Your task to perform on an android device: Open the calendar and show me this week's events? Image 0: 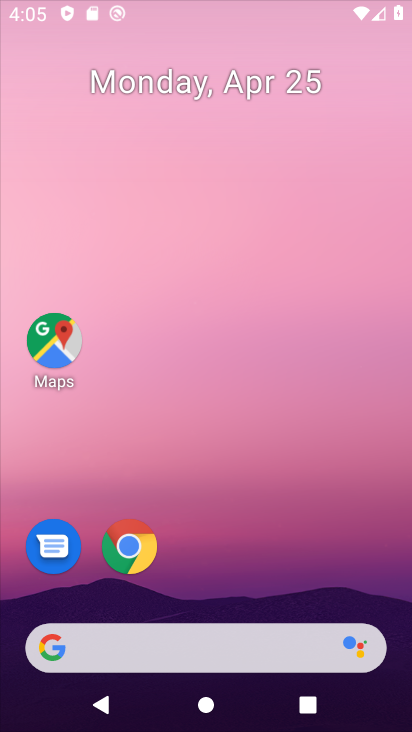
Step 0: drag from (213, 599) to (160, 20)
Your task to perform on an android device: Open the calendar and show me this week's events? Image 1: 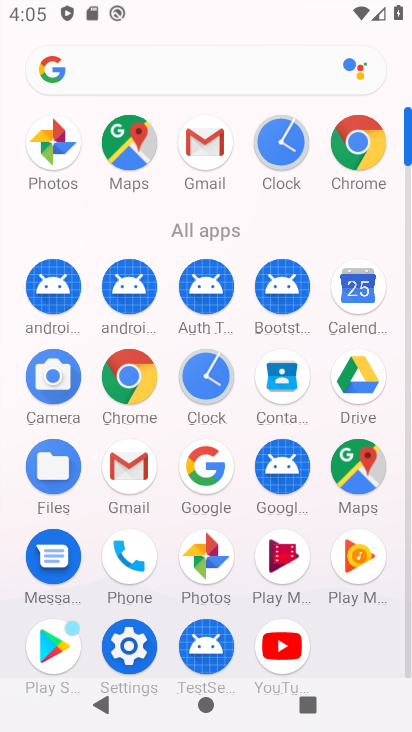
Step 1: click (360, 295)
Your task to perform on an android device: Open the calendar and show me this week's events? Image 2: 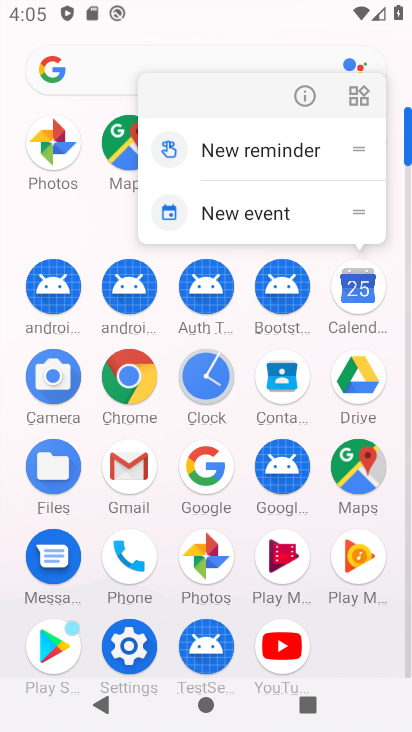
Step 2: click (347, 303)
Your task to perform on an android device: Open the calendar and show me this week's events? Image 3: 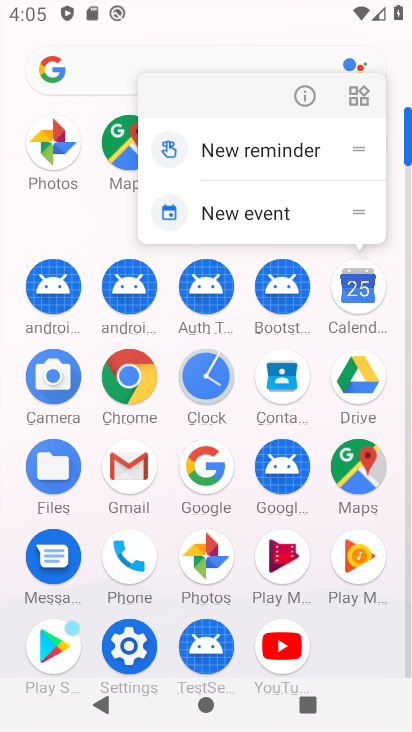
Step 3: click (355, 293)
Your task to perform on an android device: Open the calendar and show me this week's events? Image 4: 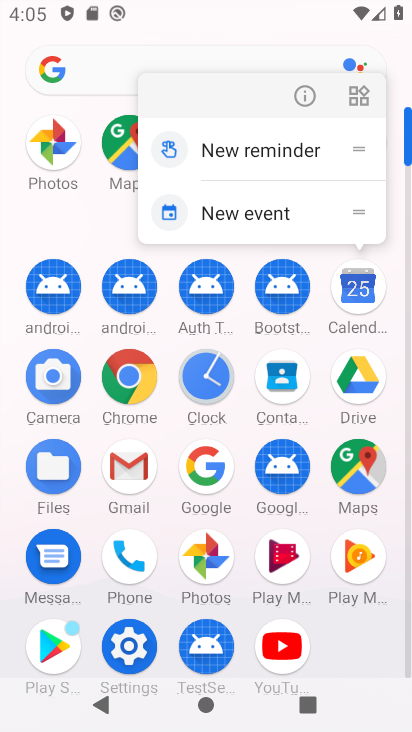
Step 4: click (359, 313)
Your task to perform on an android device: Open the calendar and show me this week's events? Image 5: 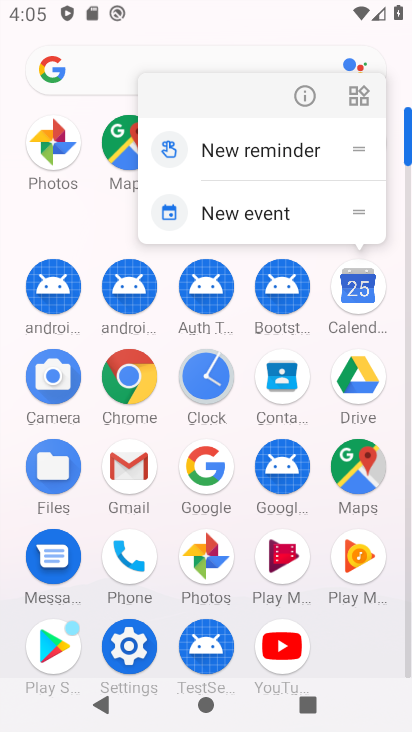
Step 5: click (359, 298)
Your task to perform on an android device: Open the calendar and show me this week's events? Image 6: 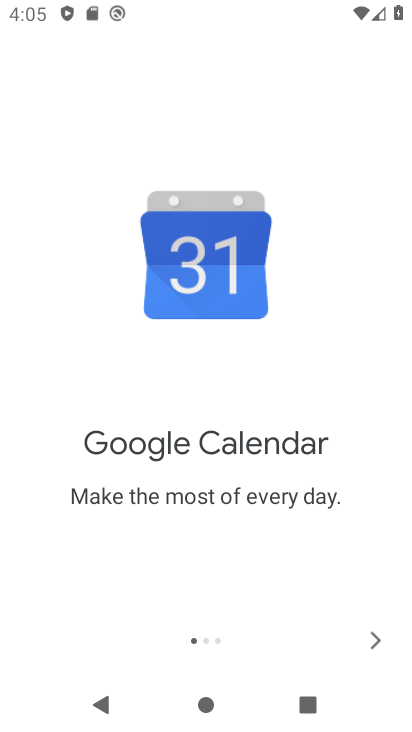
Step 6: click (374, 650)
Your task to perform on an android device: Open the calendar and show me this week's events? Image 7: 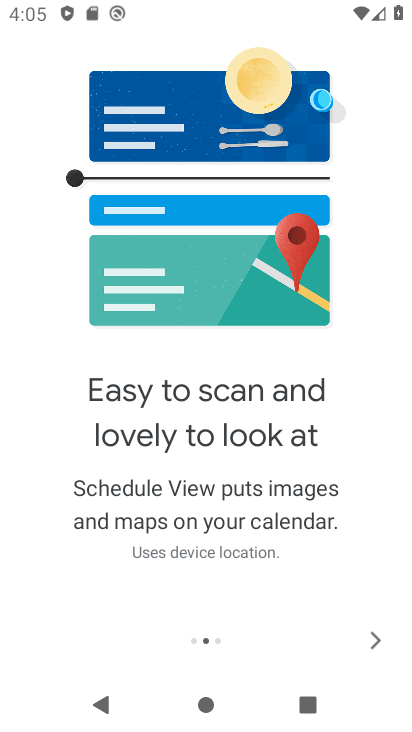
Step 7: click (374, 649)
Your task to perform on an android device: Open the calendar and show me this week's events? Image 8: 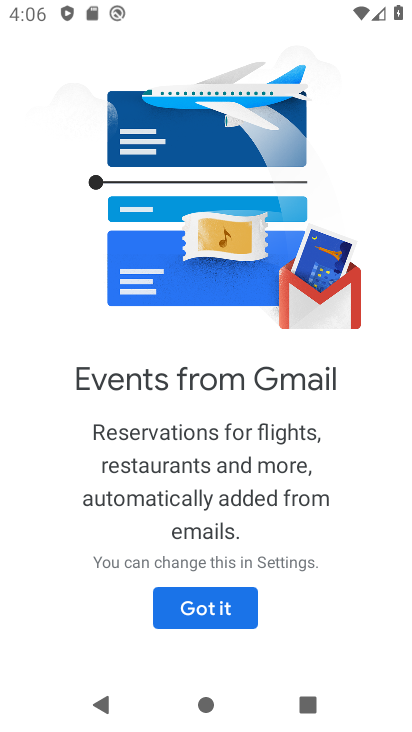
Step 8: click (211, 601)
Your task to perform on an android device: Open the calendar and show me this week's events? Image 9: 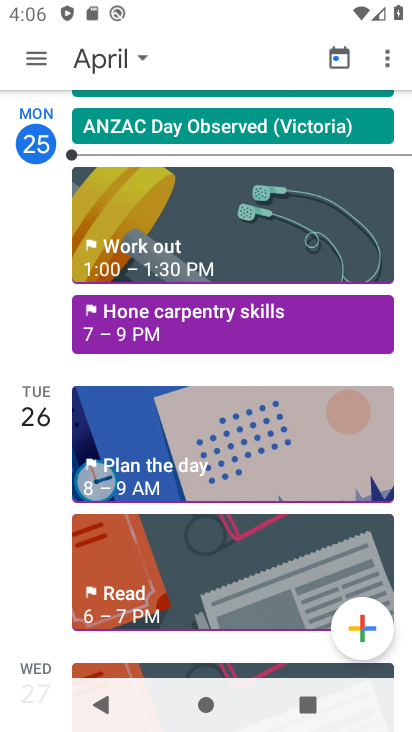
Step 9: click (27, 67)
Your task to perform on an android device: Open the calendar and show me this week's events? Image 10: 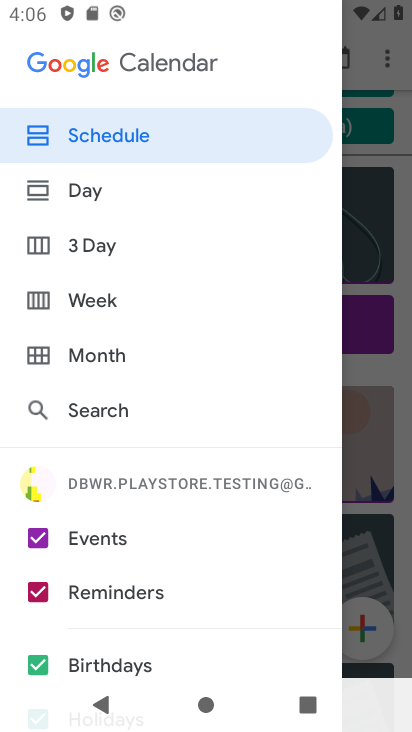
Step 10: click (89, 314)
Your task to perform on an android device: Open the calendar and show me this week's events? Image 11: 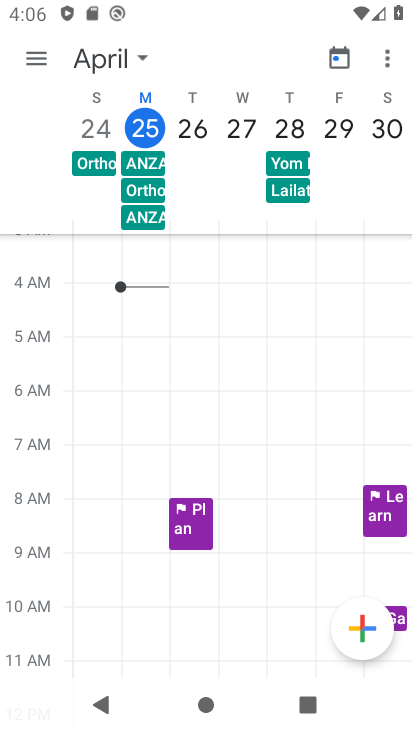
Step 11: task complete